Your task to perform on an android device: What's the weather going to be tomorrow? Image 0: 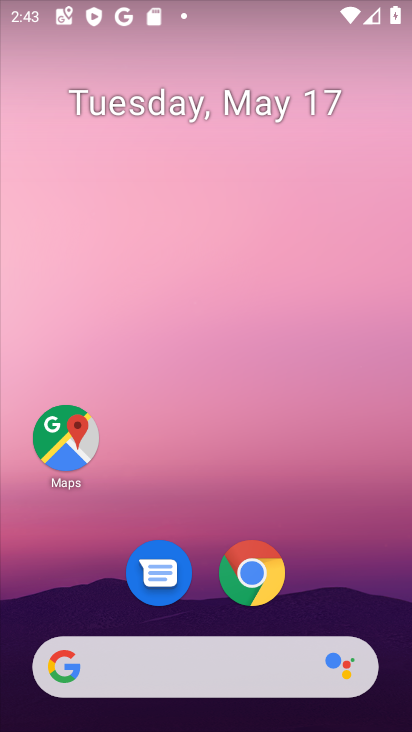
Step 0: drag from (349, 584) to (330, 235)
Your task to perform on an android device: What's the weather going to be tomorrow? Image 1: 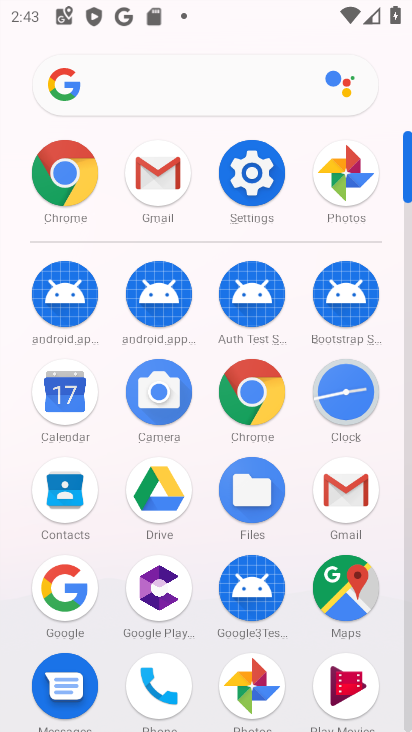
Step 1: click (241, 399)
Your task to perform on an android device: What's the weather going to be tomorrow? Image 2: 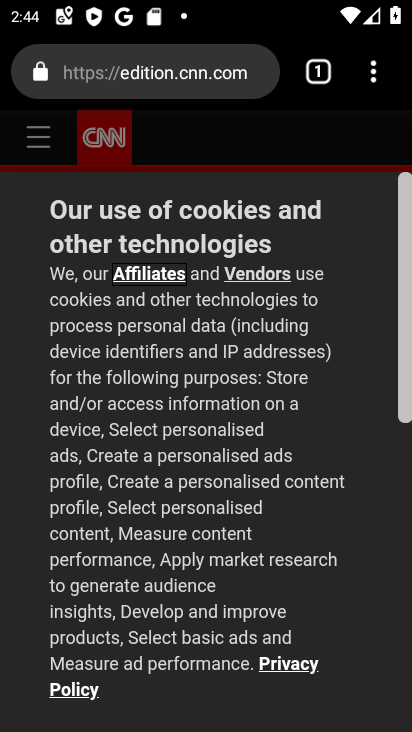
Step 2: click (184, 76)
Your task to perform on an android device: What's the weather going to be tomorrow? Image 3: 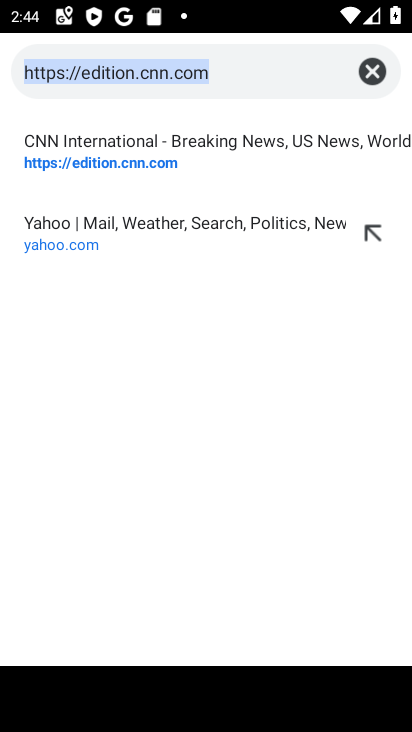
Step 3: click (368, 85)
Your task to perform on an android device: What's the weather going to be tomorrow? Image 4: 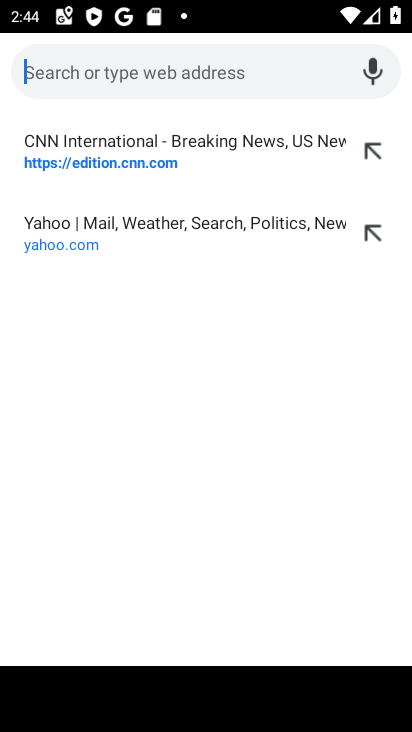
Step 4: type "what's the weather going to be tomorrow"
Your task to perform on an android device: What's the weather going to be tomorrow? Image 5: 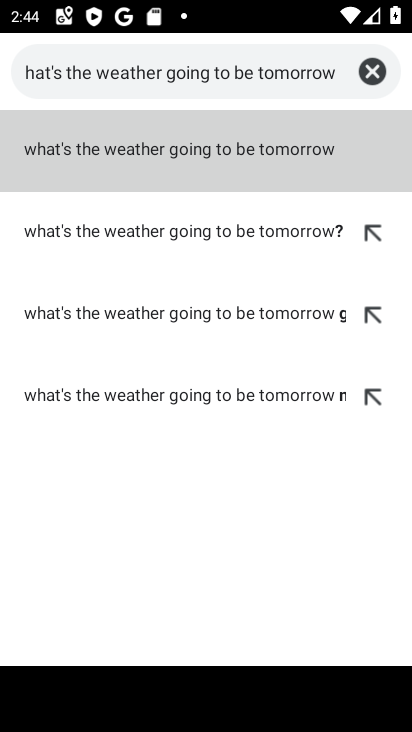
Step 5: click (170, 165)
Your task to perform on an android device: What's the weather going to be tomorrow? Image 6: 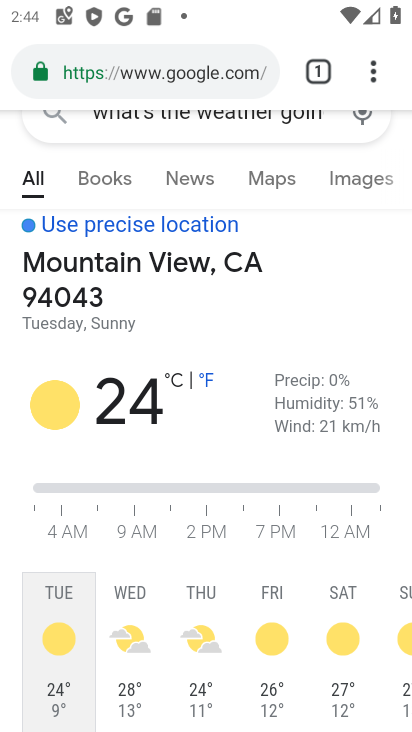
Step 6: task complete